Your task to perform on an android device: toggle translation in the chrome app Image 0: 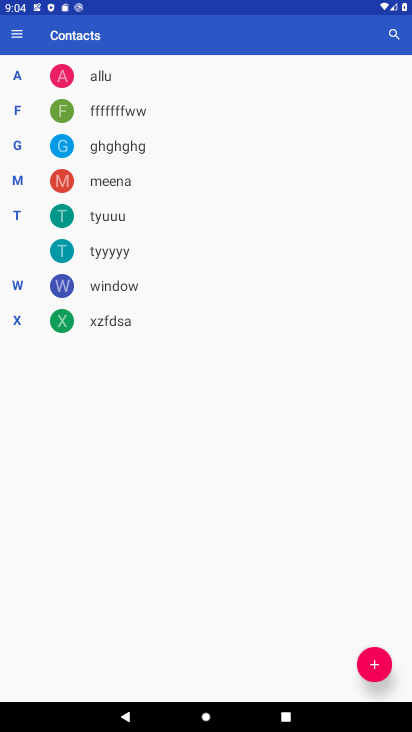
Step 0: press home button
Your task to perform on an android device: toggle translation in the chrome app Image 1: 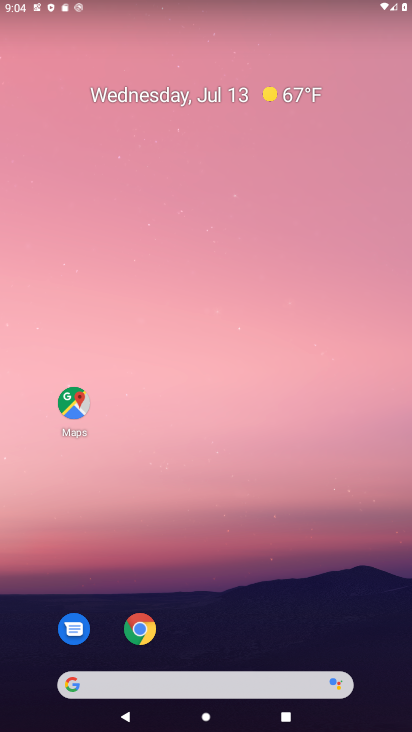
Step 1: drag from (221, 656) to (202, 61)
Your task to perform on an android device: toggle translation in the chrome app Image 2: 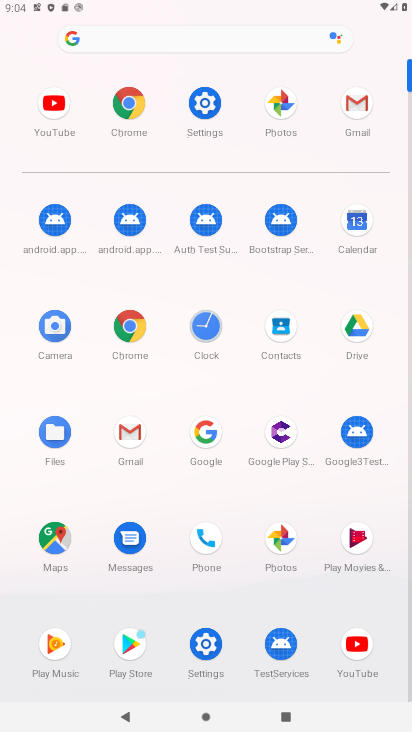
Step 2: click (129, 317)
Your task to perform on an android device: toggle translation in the chrome app Image 3: 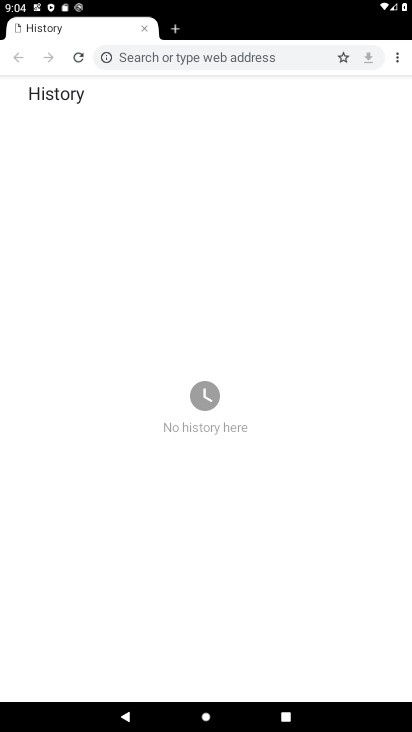
Step 3: click (402, 56)
Your task to perform on an android device: toggle translation in the chrome app Image 4: 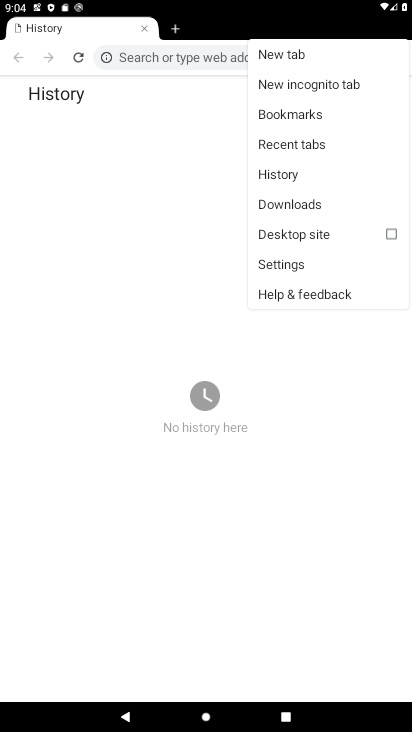
Step 4: click (286, 268)
Your task to perform on an android device: toggle translation in the chrome app Image 5: 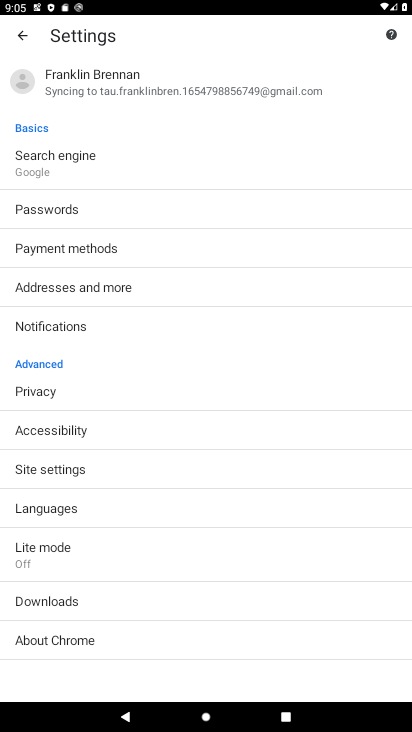
Step 5: click (67, 468)
Your task to perform on an android device: toggle translation in the chrome app Image 6: 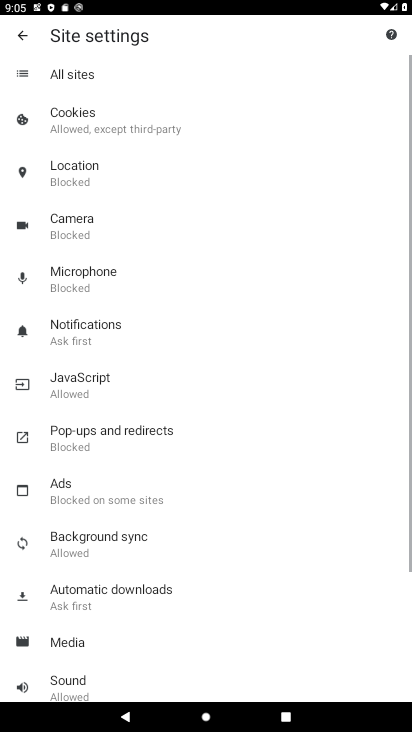
Step 6: click (18, 37)
Your task to perform on an android device: toggle translation in the chrome app Image 7: 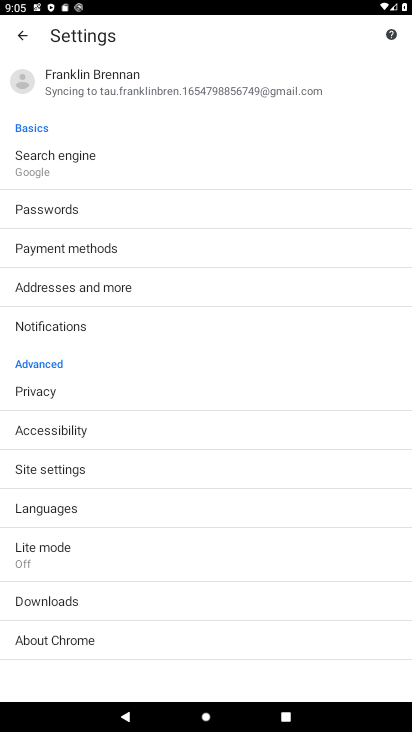
Step 7: click (60, 512)
Your task to perform on an android device: toggle translation in the chrome app Image 8: 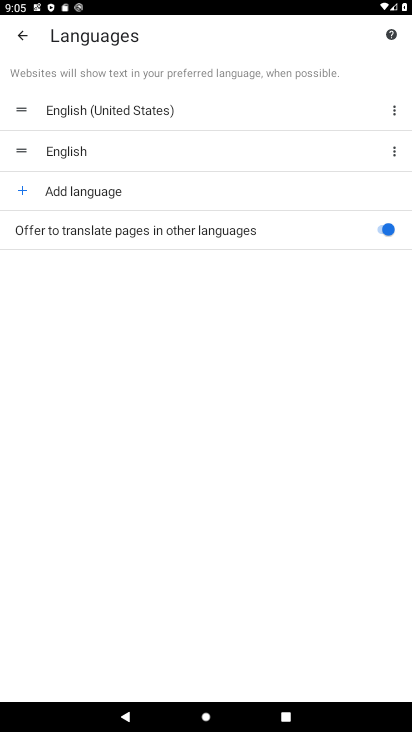
Step 8: click (194, 231)
Your task to perform on an android device: toggle translation in the chrome app Image 9: 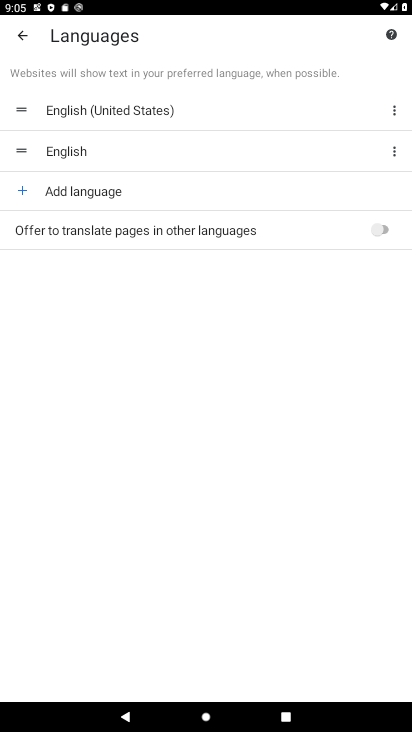
Step 9: task complete